Your task to perform on an android device: check out phone information Image 0: 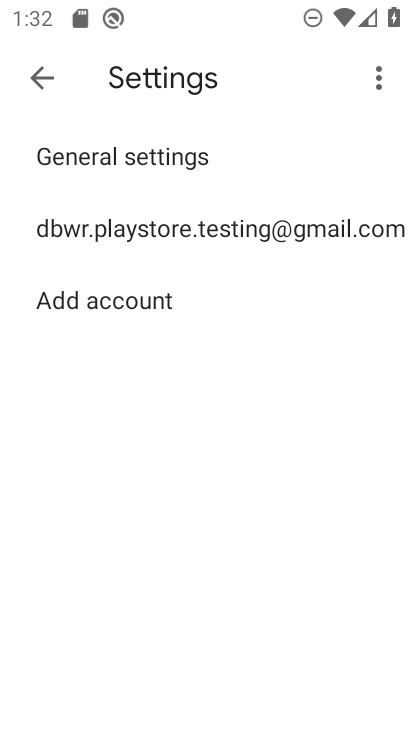
Step 0: press back button
Your task to perform on an android device: check out phone information Image 1: 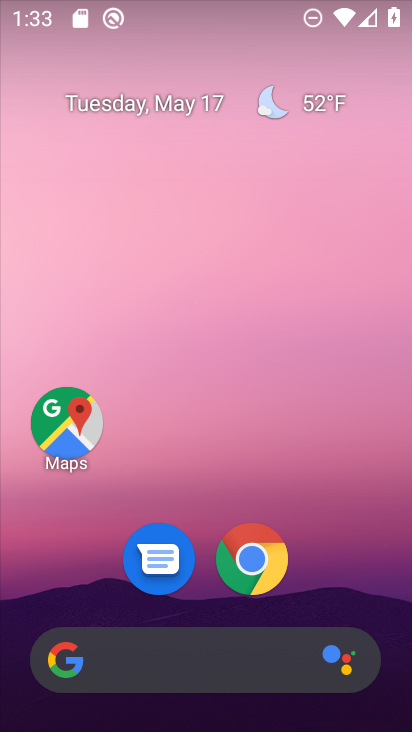
Step 1: drag from (329, 580) to (242, 14)
Your task to perform on an android device: check out phone information Image 2: 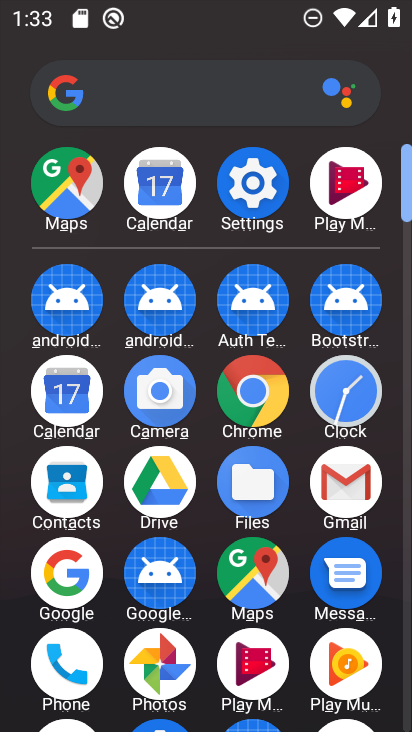
Step 2: click (253, 181)
Your task to perform on an android device: check out phone information Image 3: 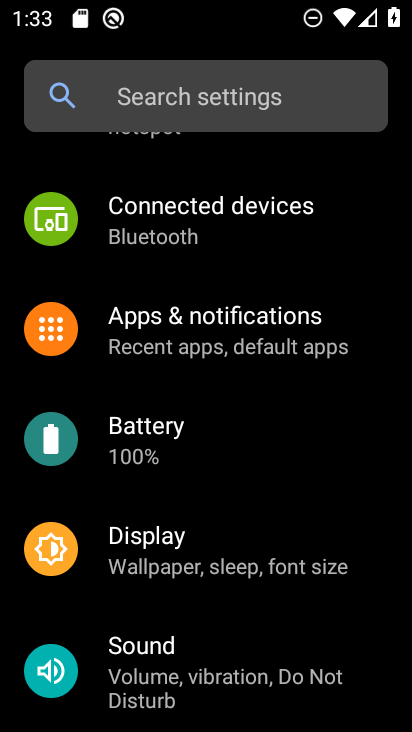
Step 3: drag from (225, 465) to (259, 364)
Your task to perform on an android device: check out phone information Image 4: 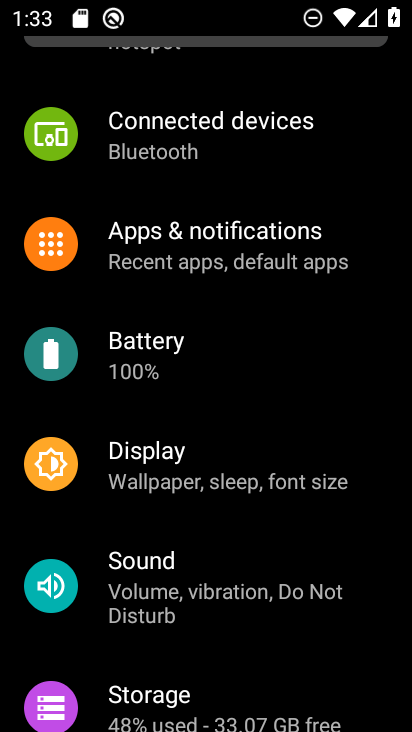
Step 4: drag from (240, 542) to (288, 423)
Your task to perform on an android device: check out phone information Image 5: 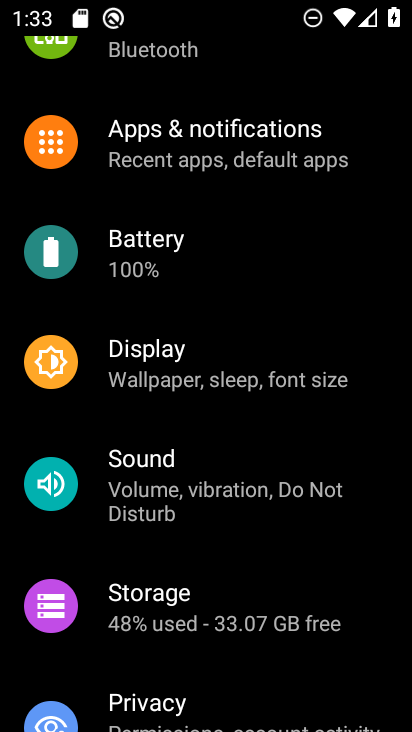
Step 5: drag from (210, 538) to (249, 391)
Your task to perform on an android device: check out phone information Image 6: 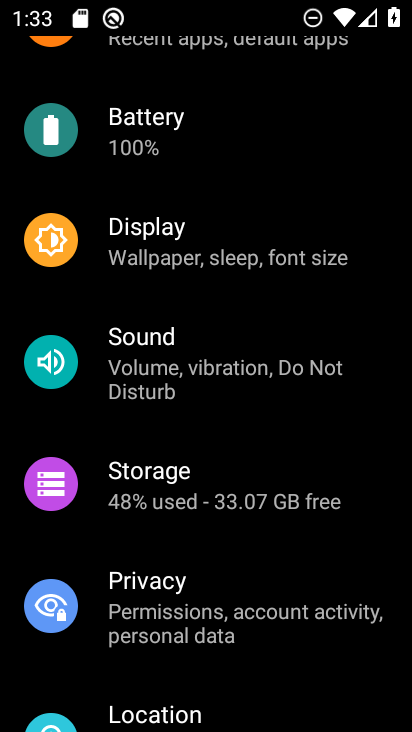
Step 6: drag from (200, 545) to (237, 448)
Your task to perform on an android device: check out phone information Image 7: 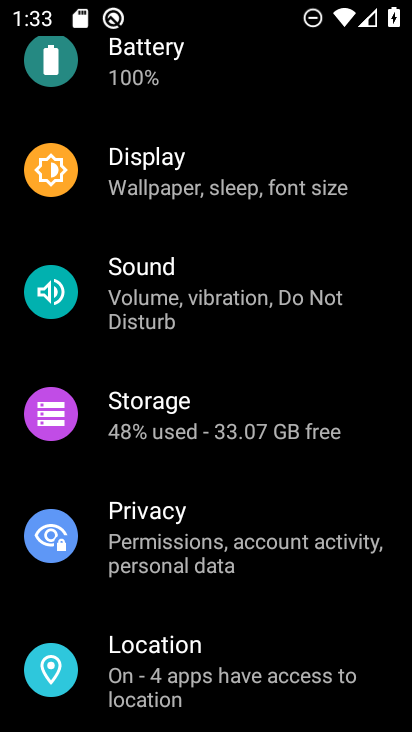
Step 7: drag from (149, 599) to (209, 466)
Your task to perform on an android device: check out phone information Image 8: 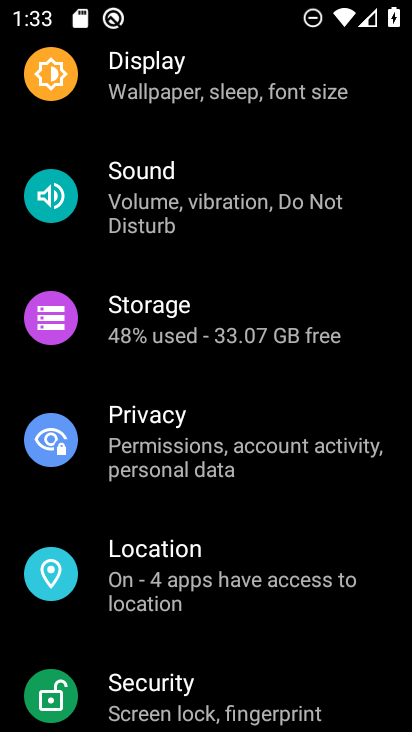
Step 8: drag from (143, 639) to (222, 487)
Your task to perform on an android device: check out phone information Image 9: 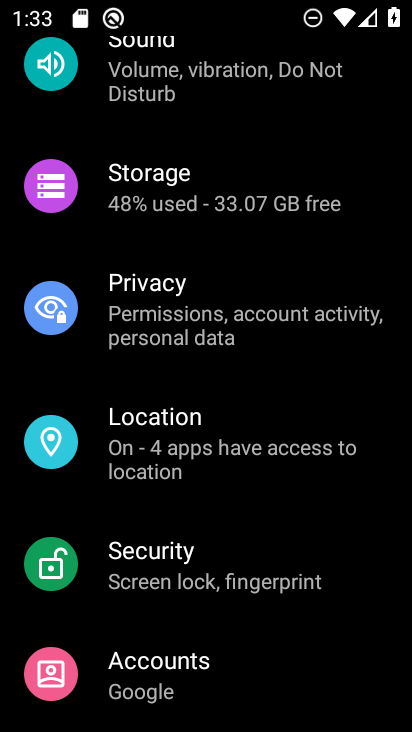
Step 9: drag from (192, 613) to (225, 454)
Your task to perform on an android device: check out phone information Image 10: 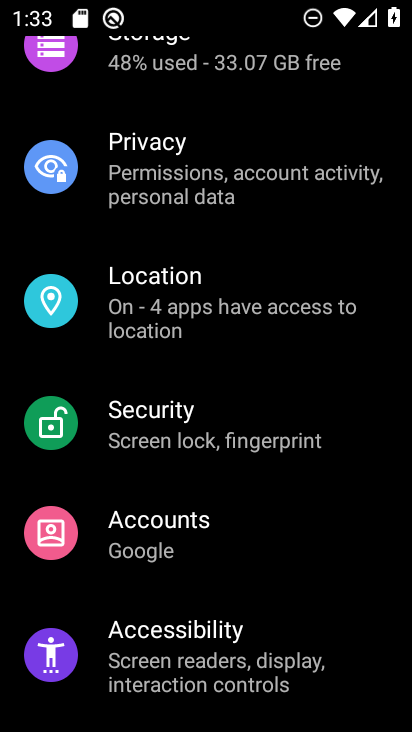
Step 10: drag from (178, 545) to (200, 450)
Your task to perform on an android device: check out phone information Image 11: 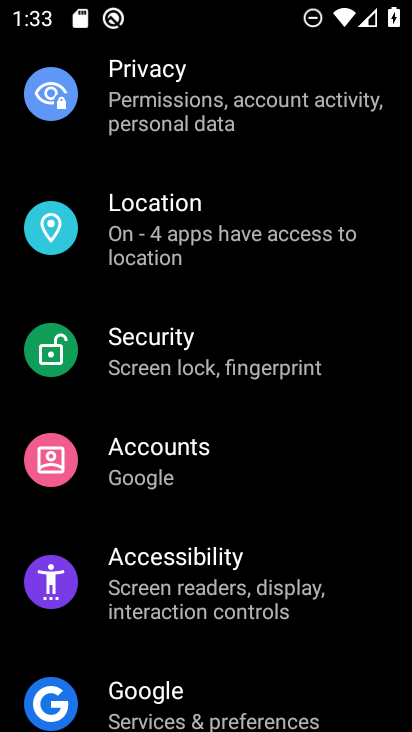
Step 11: drag from (141, 521) to (203, 412)
Your task to perform on an android device: check out phone information Image 12: 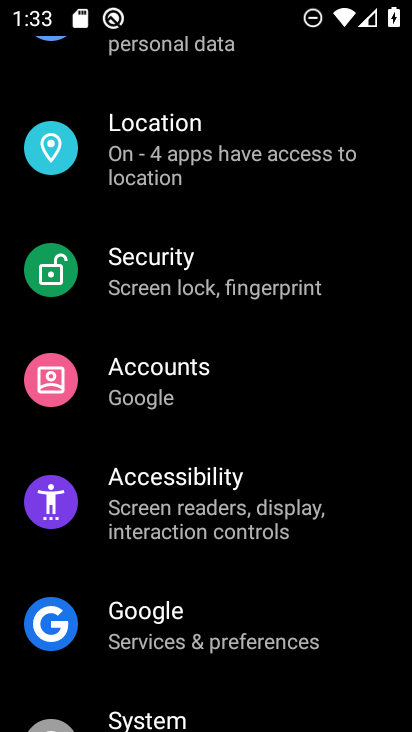
Step 12: drag from (139, 551) to (217, 431)
Your task to perform on an android device: check out phone information Image 13: 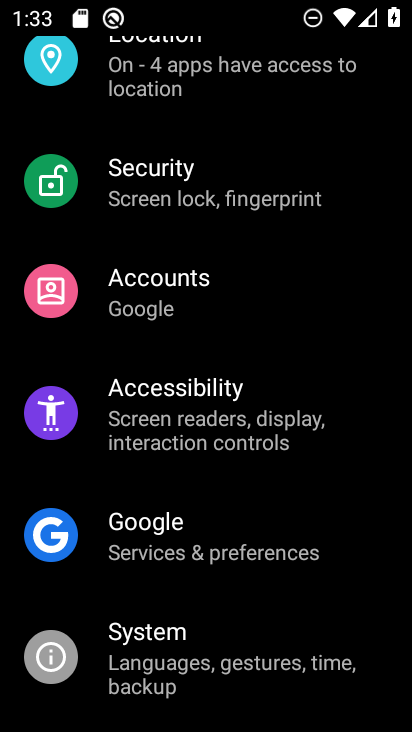
Step 13: drag from (155, 576) to (203, 435)
Your task to perform on an android device: check out phone information Image 14: 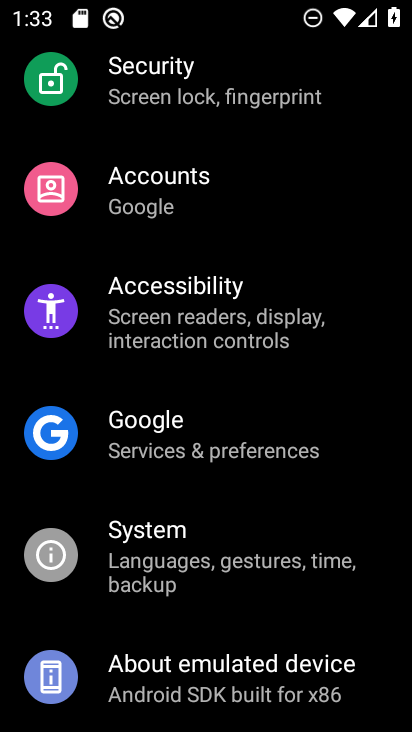
Step 14: click (187, 659)
Your task to perform on an android device: check out phone information Image 15: 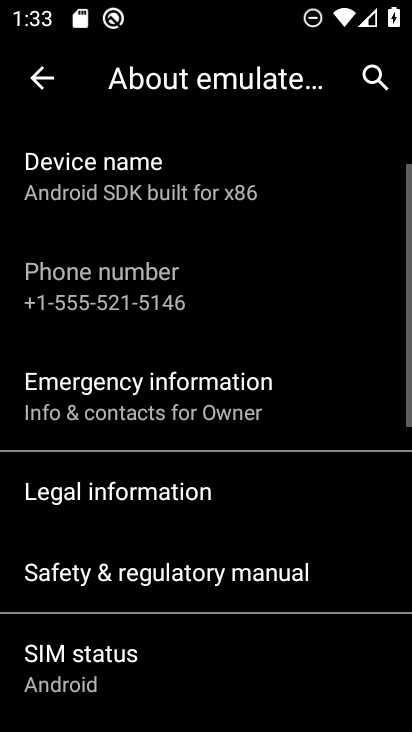
Step 15: task complete